Your task to perform on an android device: toggle improve location accuracy Image 0: 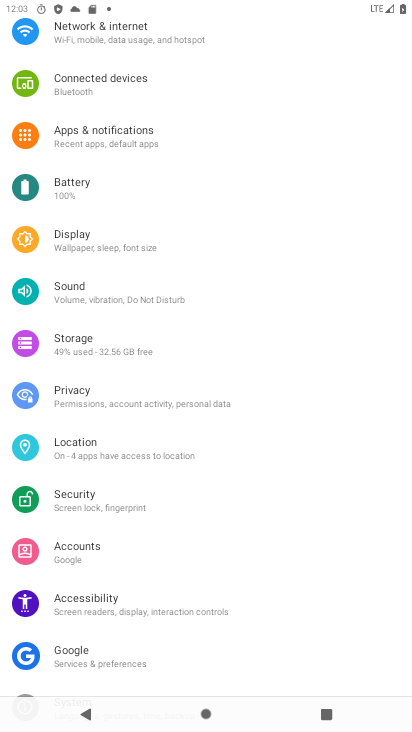
Step 0: click (78, 453)
Your task to perform on an android device: toggle improve location accuracy Image 1: 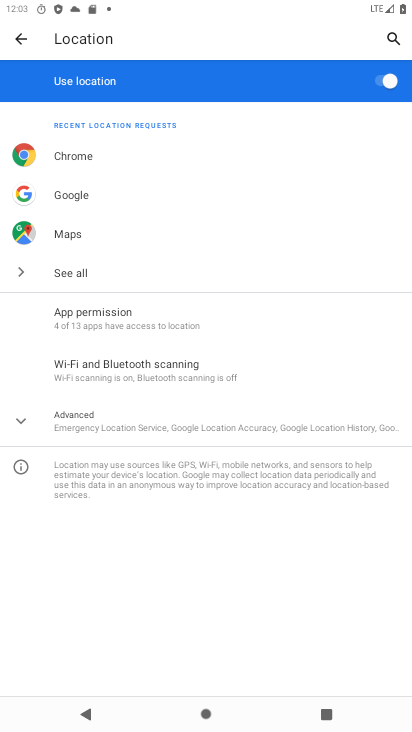
Step 1: click (25, 425)
Your task to perform on an android device: toggle improve location accuracy Image 2: 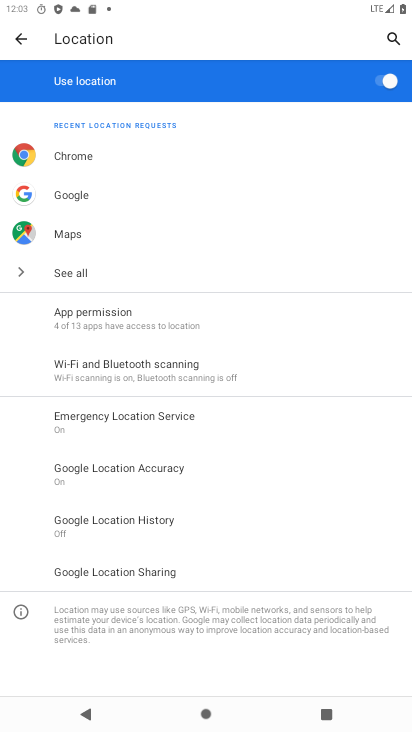
Step 2: click (82, 471)
Your task to perform on an android device: toggle improve location accuracy Image 3: 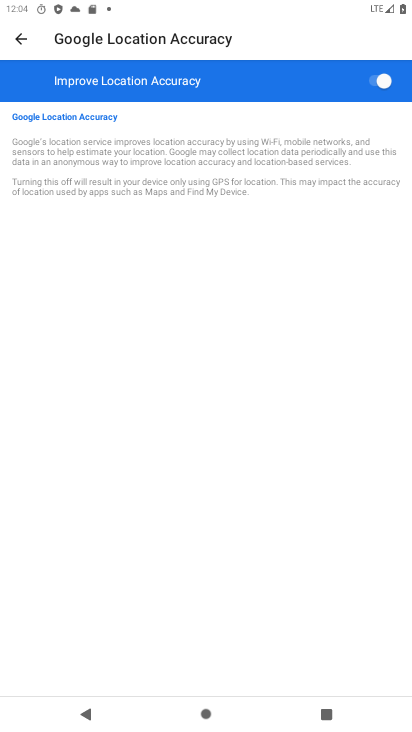
Step 3: click (384, 83)
Your task to perform on an android device: toggle improve location accuracy Image 4: 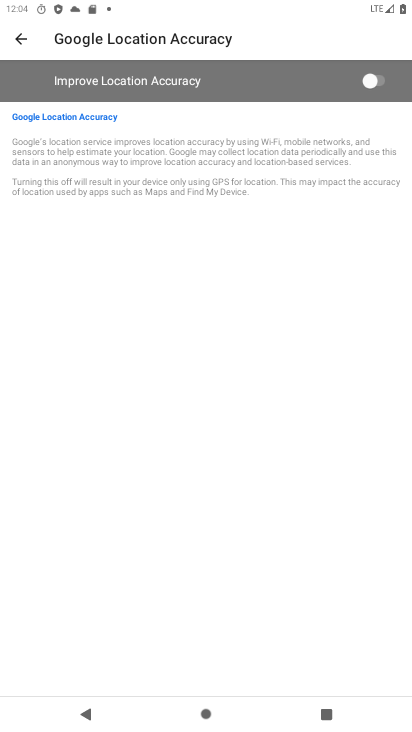
Step 4: task complete